Your task to perform on an android device: change notification settings in the gmail app Image 0: 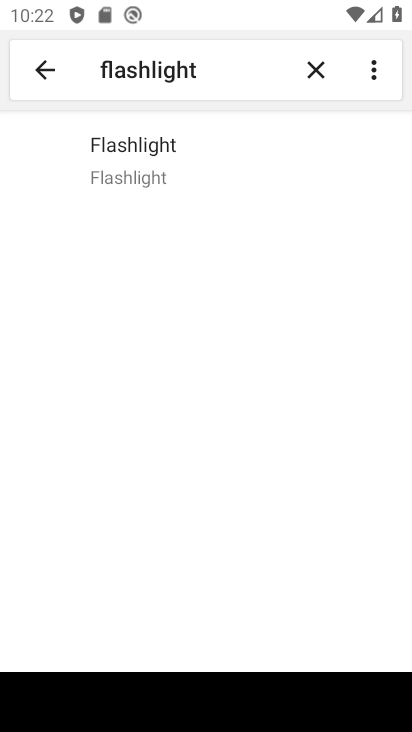
Step 0: task impossible